Your task to perform on an android device: Open Youtube and go to "Your channel" Image 0: 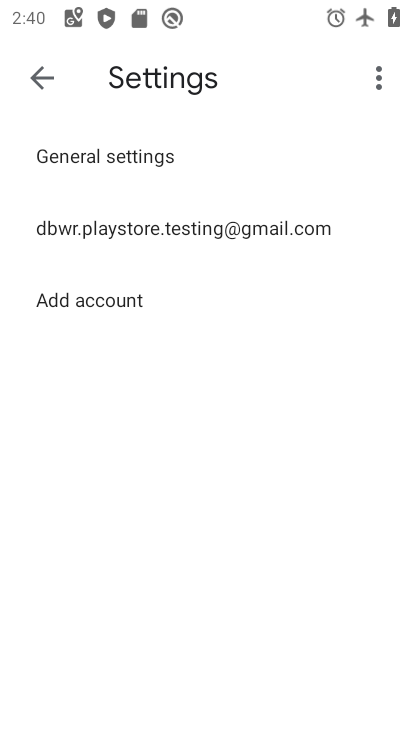
Step 0: press home button
Your task to perform on an android device: Open Youtube and go to "Your channel" Image 1: 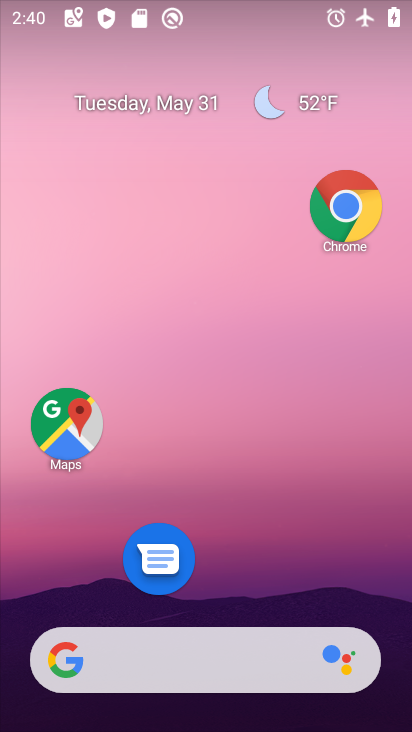
Step 1: drag from (257, 593) to (207, 166)
Your task to perform on an android device: Open Youtube and go to "Your channel" Image 2: 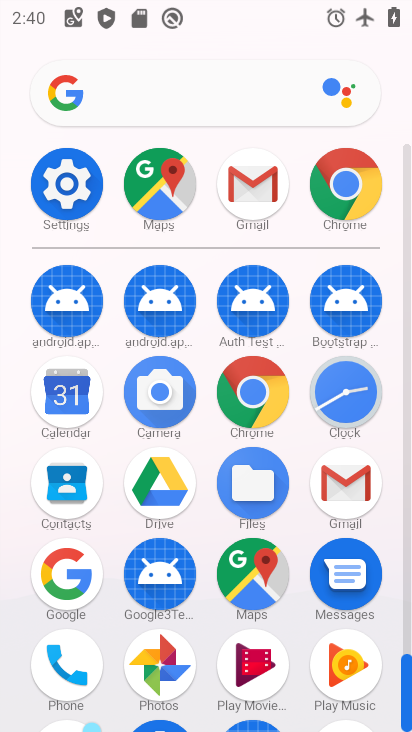
Step 2: drag from (290, 243) to (281, 50)
Your task to perform on an android device: Open Youtube and go to "Your channel" Image 3: 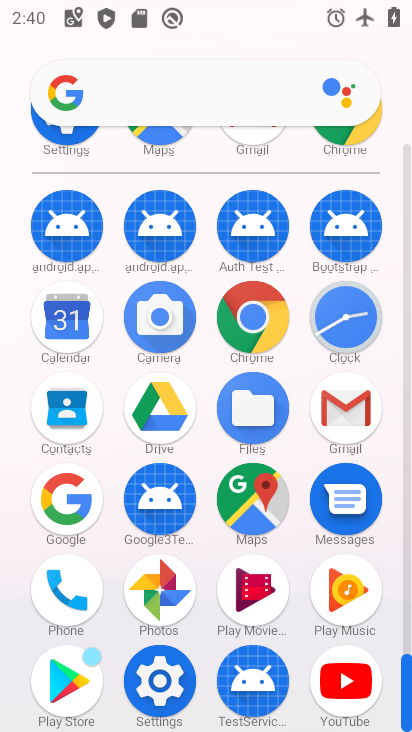
Step 3: click (321, 675)
Your task to perform on an android device: Open Youtube and go to "Your channel" Image 4: 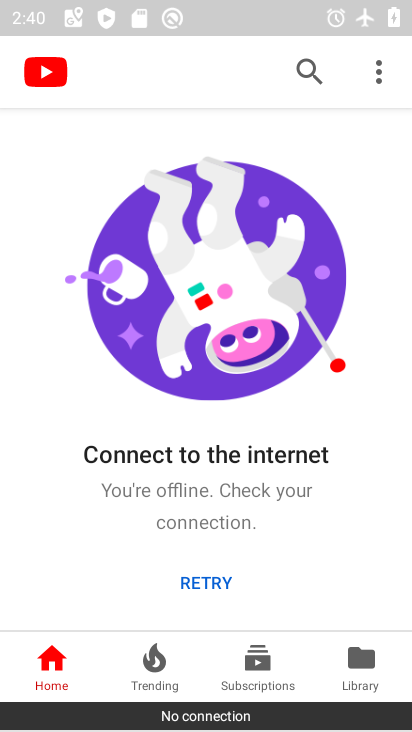
Step 4: click (382, 68)
Your task to perform on an android device: Open Youtube and go to "Your channel" Image 5: 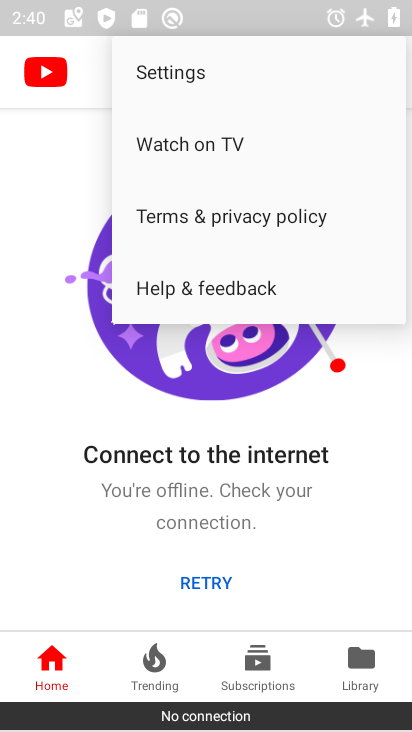
Step 5: click (229, 91)
Your task to perform on an android device: Open Youtube and go to "Your channel" Image 6: 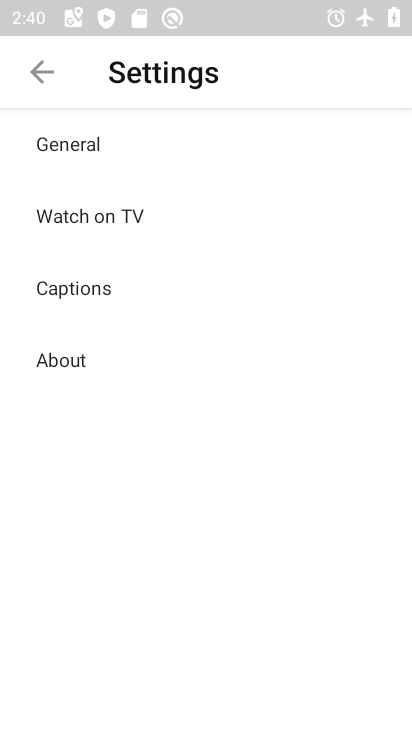
Step 6: task complete